Your task to perform on an android device: Search for Italian restaurants on Maps Image 0: 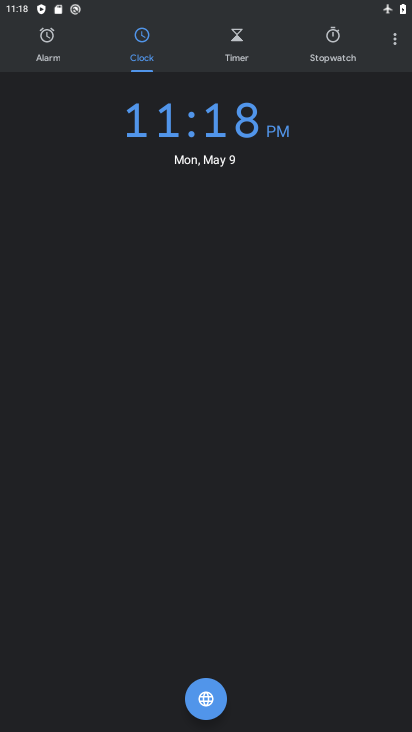
Step 0: press home button
Your task to perform on an android device: Search for Italian restaurants on Maps Image 1: 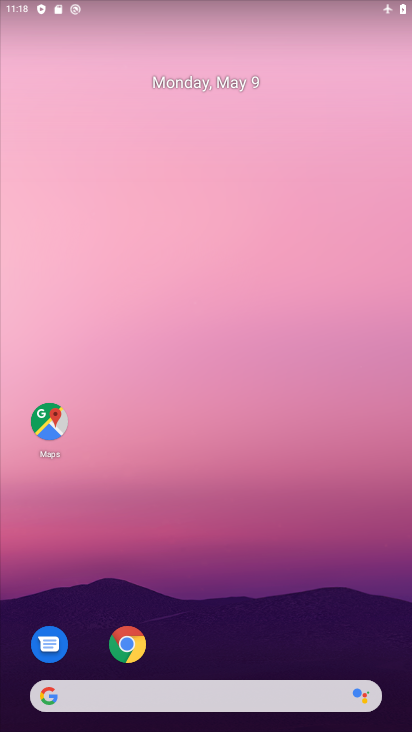
Step 1: click (62, 421)
Your task to perform on an android device: Search for Italian restaurants on Maps Image 2: 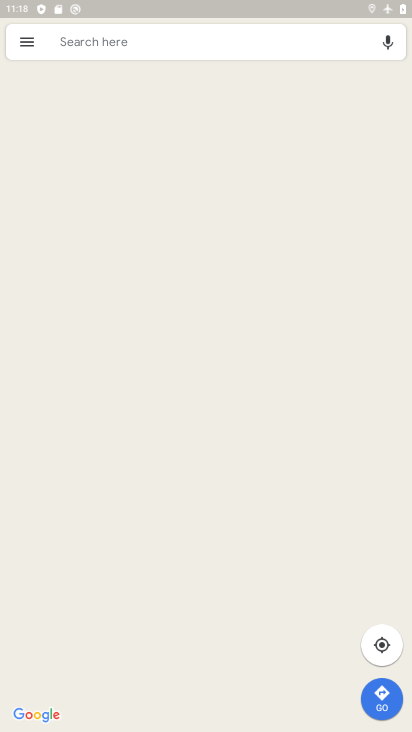
Step 2: click (223, 35)
Your task to perform on an android device: Search for Italian restaurants on Maps Image 3: 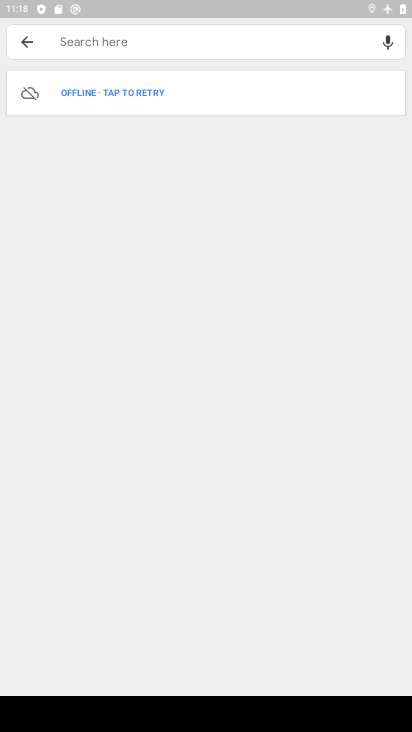
Step 3: type "Italian restaurants"
Your task to perform on an android device: Search for Italian restaurants on Maps Image 4: 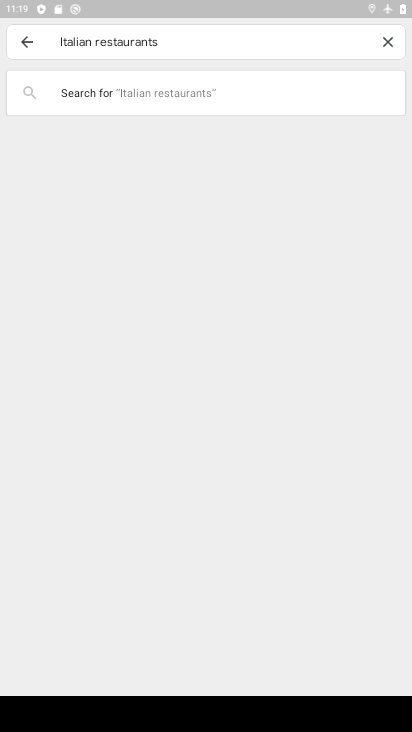
Step 4: task complete